Your task to perform on an android device: Open CNN.com Image 0: 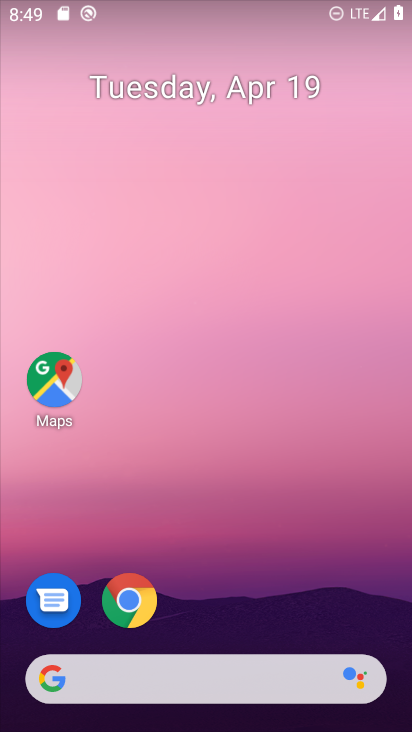
Step 0: drag from (242, 608) to (267, 51)
Your task to perform on an android device: Open CNN.com Image 1: 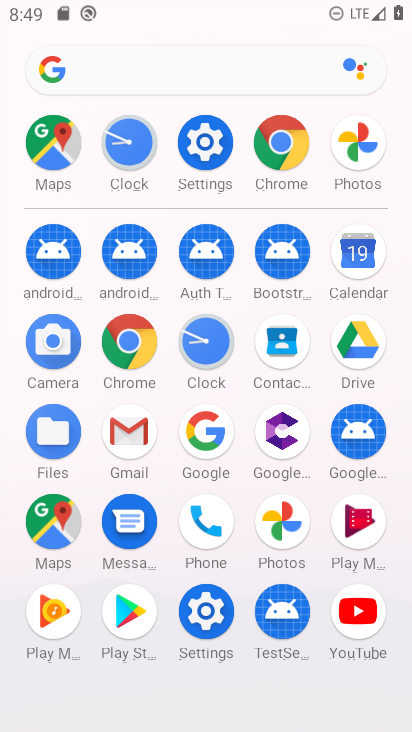
Step 1: click (120, 349)
Your task to perform on an android device: Open CNN.com Image 2: 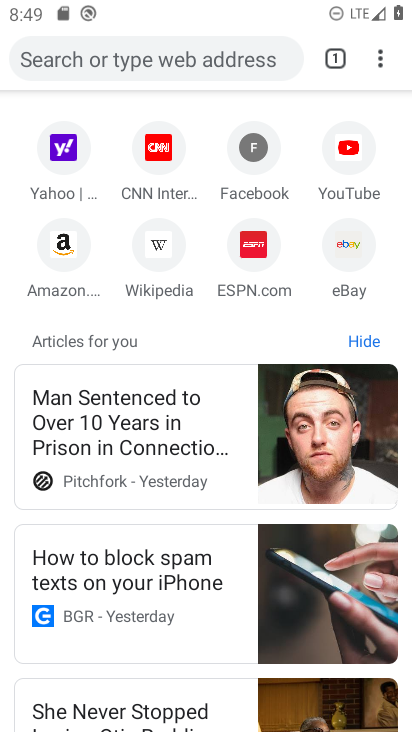
Step 2: click (196, 57)
Your task to perform on an android device: Open CNN.com Image 3: 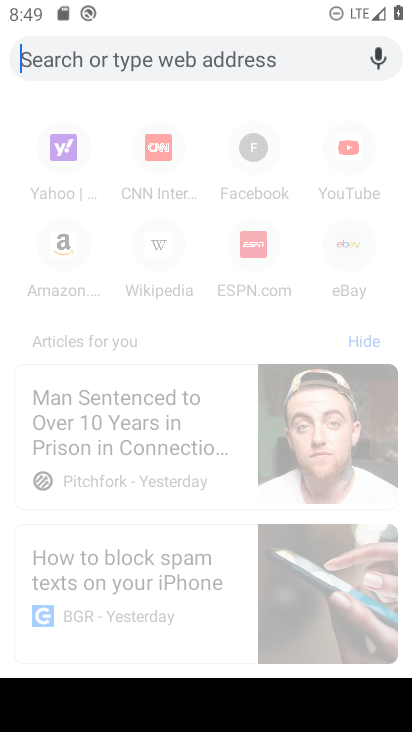
Step 3: type "cnn.com"
Your task to perform on an android device: Open CNN.com Image 4: 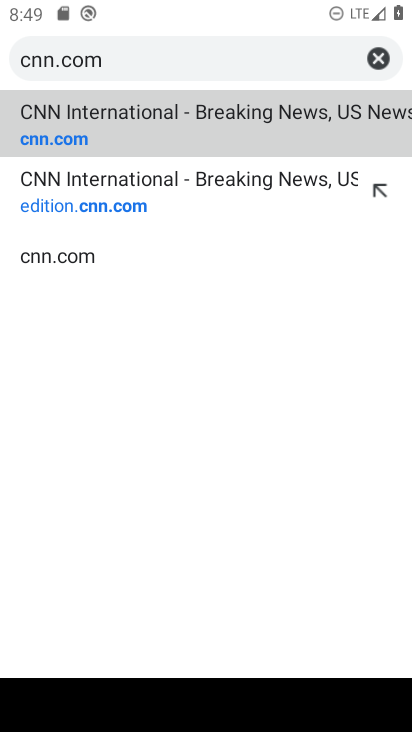
Step 4: click (111, 122)
Your task to perform on an android device: Open CNN.com Image 5: 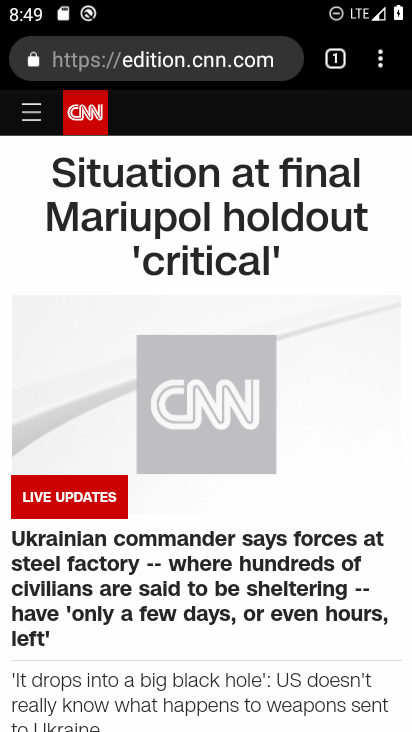
Step 5: task complete